Your task to perform on an android device: Open the phone app and click the voicemail tab. Image 0: 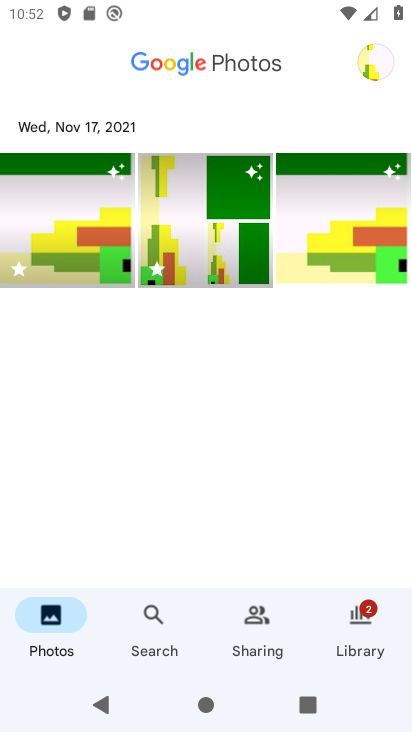
Step 0: press home button
Your task to perform on an android device: Open the phone app and click the voicemail tab. Image 1: 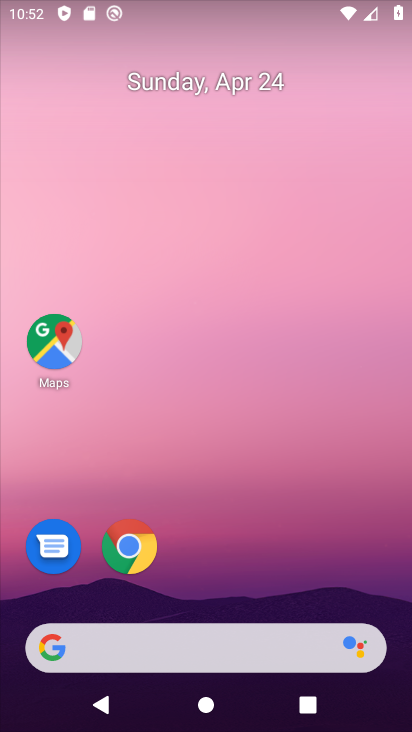
Step 1: drag from (253, 443) to (279, 166)
Your task to perform on an android device: Open the phone app and click the voicemail tab. Image 2: 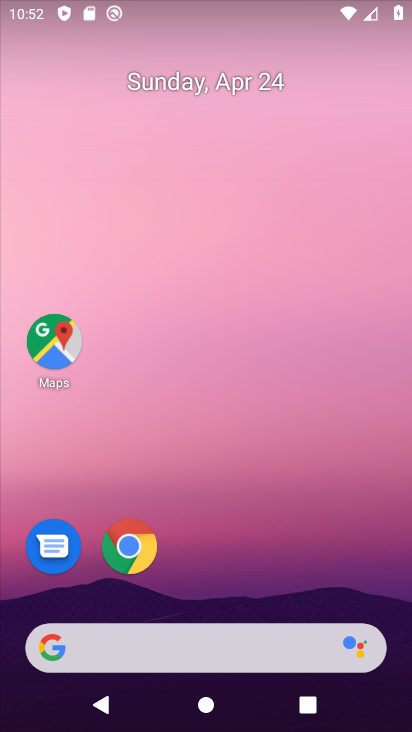
Step 2: drag from (200, 538) to (254, 114)
Your task to perform on an android device: Open the phone app and click the voicemail tab. Image 3: 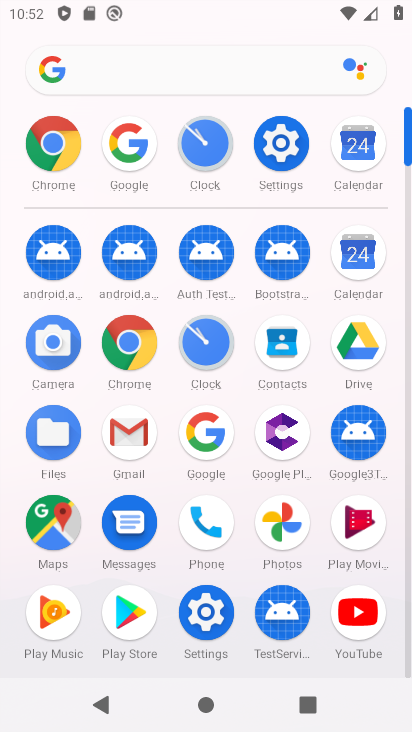
Step 3: drag from (254, 459) to (252, 144)
Your task to perform on an android device: Open the phone app and click the voicemail tab. Image 4: 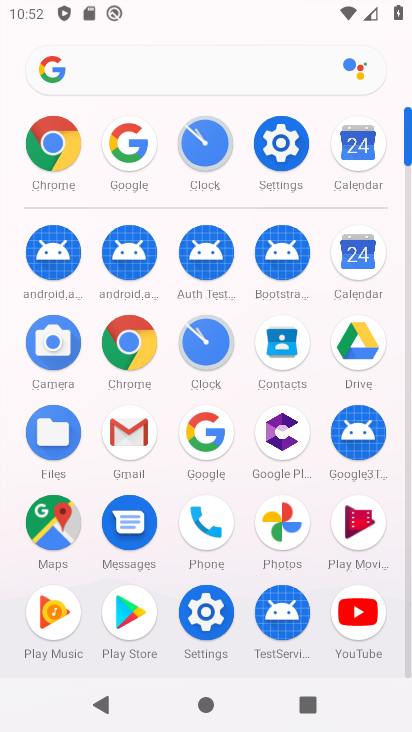
Step 4: click (209, 506)
Your task to perform on an android device: Open the phone app and click the voicemail tab. Image 5: 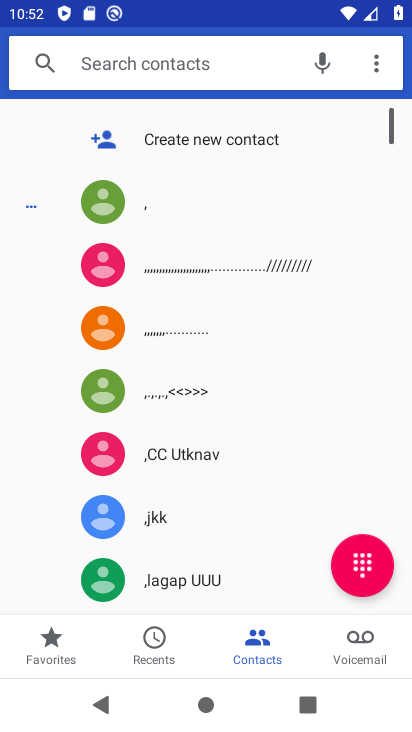
Step 5: click (358, 654)
Your task to perform on an android device: Open the phone app and click the voicemail tab. Image 6: 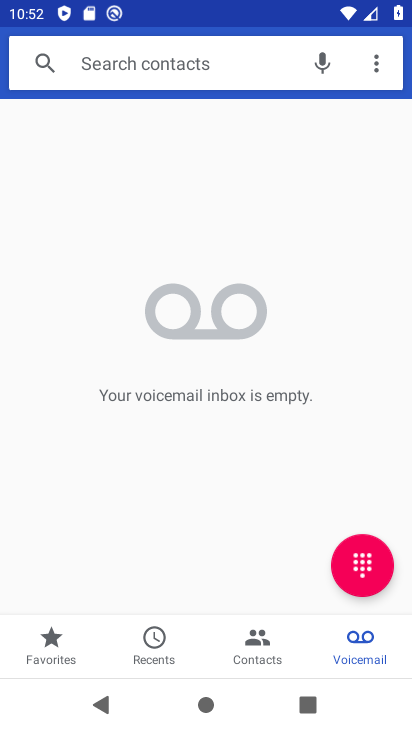
Step 6: task complete